Your task to perform on an android device: add a contact Image 0: 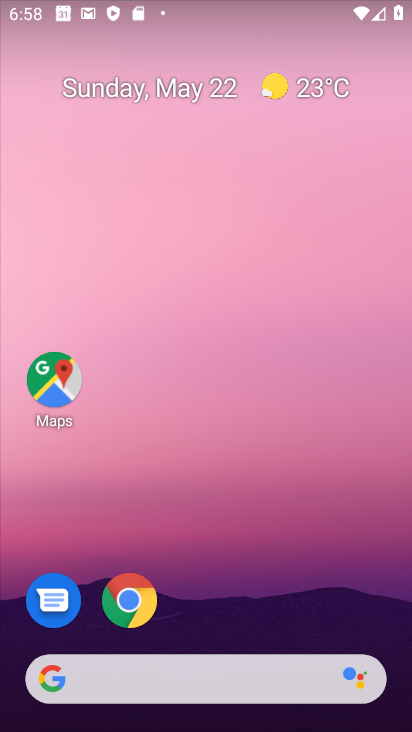
Step 0: drag from (377, 603) to (239, 113)
Your task to perform on an android device: add a contact Image 1: 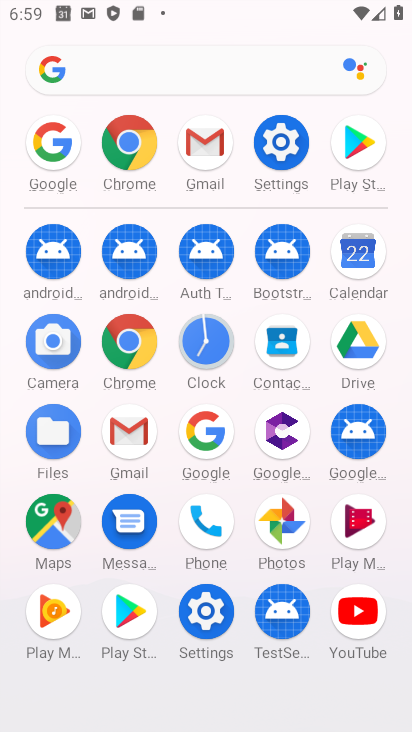
Step 1: click (220, 533)
Your task to perform on an android device: add a contact Image 2: 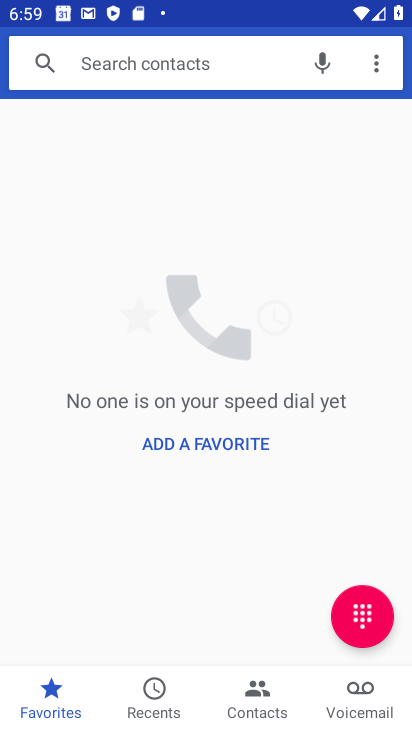
Step 2: press home button
Your task to perform on an android device: add a contact Image 3: 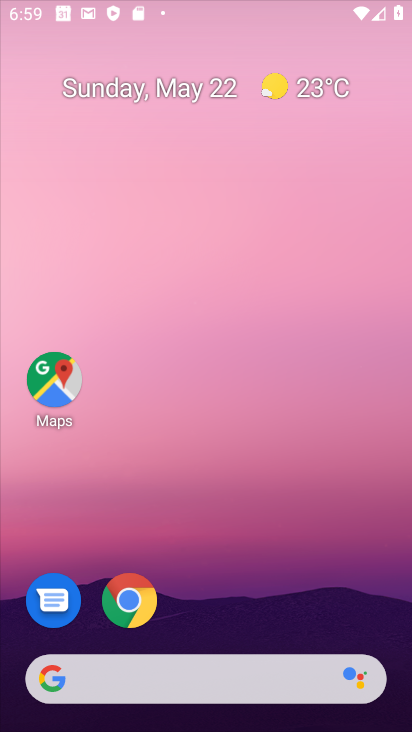
Step 3: drag from (372, 595) to (279, 76)
Your task to perform on an android device: add a contact Image 4: 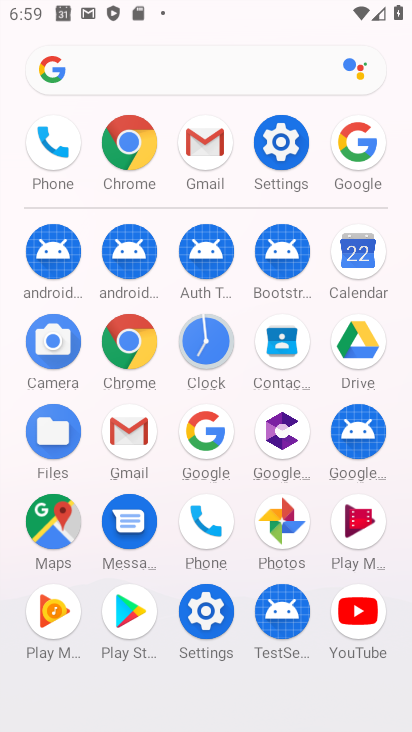
Step 4: click (272, 344)
Your task to perform on an android device: add a contact Image 5: 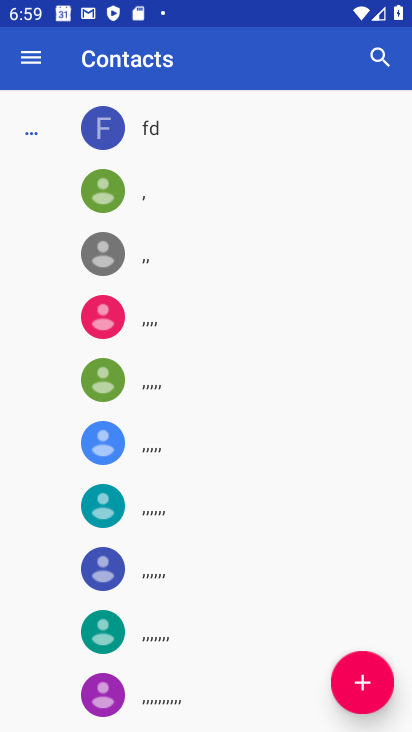
Step 5: click (369, 687)
Your task to perform on an android device: add a contact Image 6: 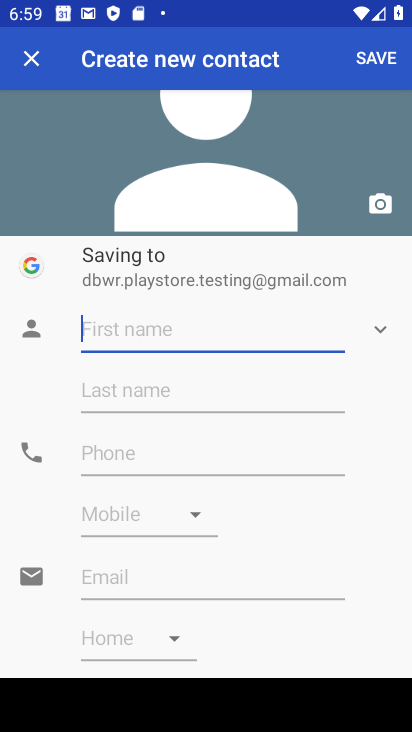
Step 6: type "lura"
Your task to perform on an android device: add a contact Image 7: 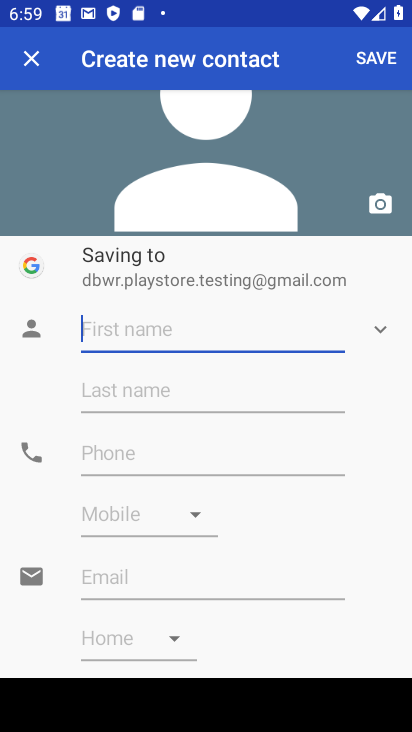
Step 7: click (362, 66)
Your task to perform on an android device: add a contact Image 8: 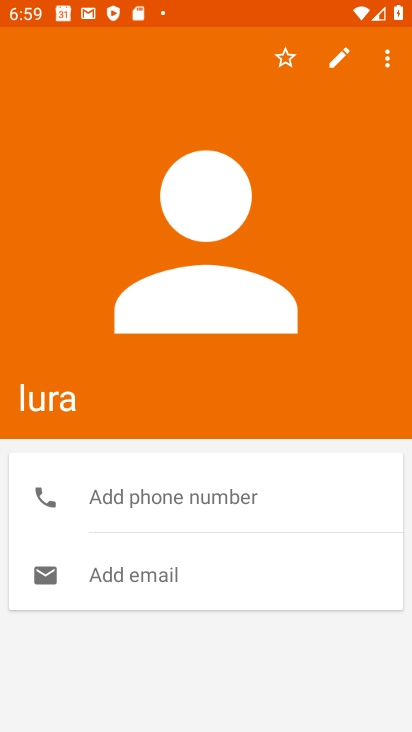
Step 8: task complete